Your task to perform on an android device: visit the assistant section in the google photos Image 0: 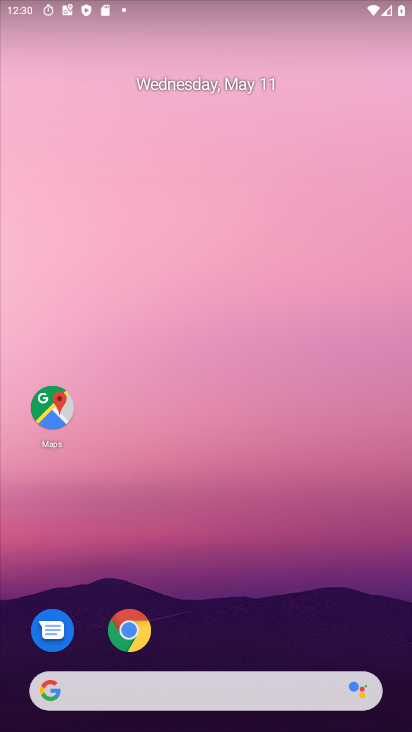
Step 0: drag from (313, 629) to (319, 126)
Your task to perform on an android device: visit the assistant section in the google photos Image 1: 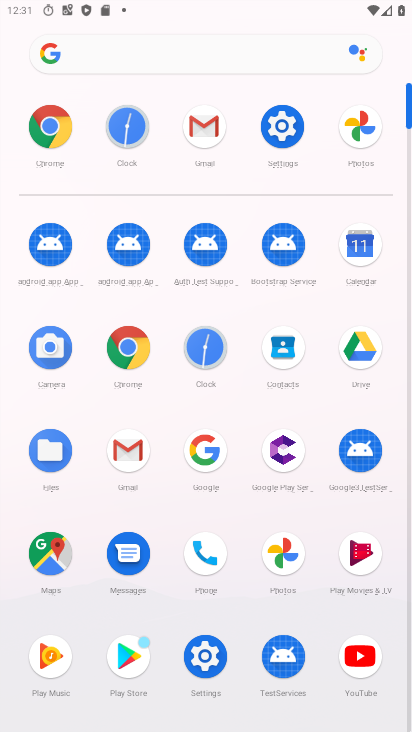
Step 1: click (281, 548)
Your task to perform on an android device: visit the assistant section in the google photos Image 2: 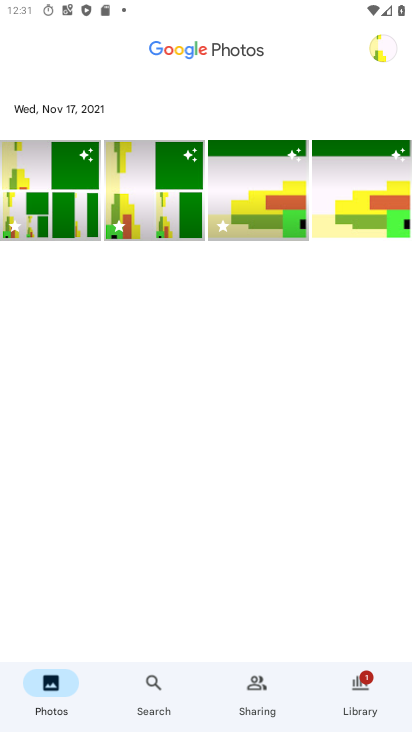
Step 2: click (374, 693)
Your task to perform on an android device: visit the assistant section in the google photos Image 3: 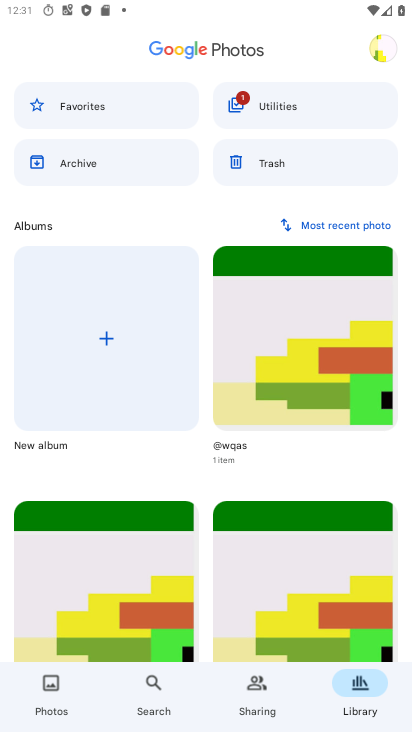
Step 3: task complete